Your task to perform on an android device: check google app version Image 0: 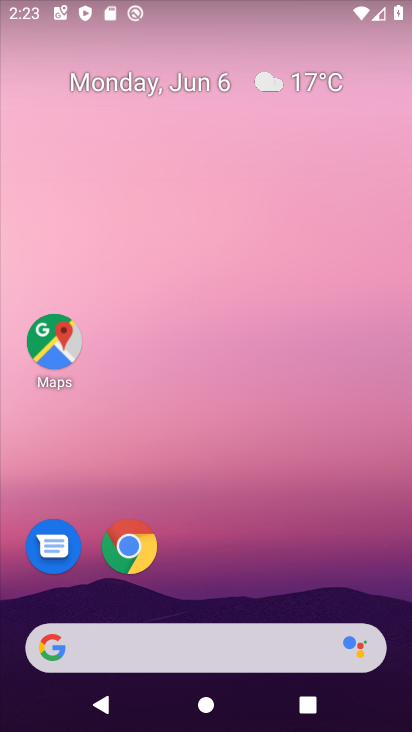
Step 0: drag from (242, 621) to (234, 245)
Your task to perform on an android device: check google app version Image 1: 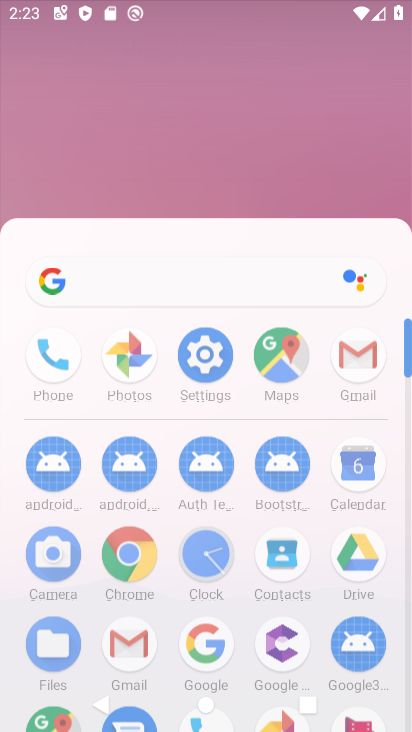
Step 1: click (234, 245)
Your task to perform on an android device: check google app version Image 2: 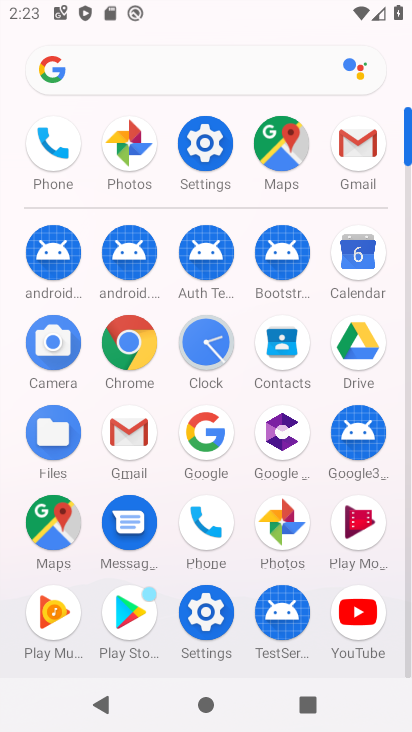
Step 2: click (142, 338)
Your task to perform on an android device: check google app version Image 3: 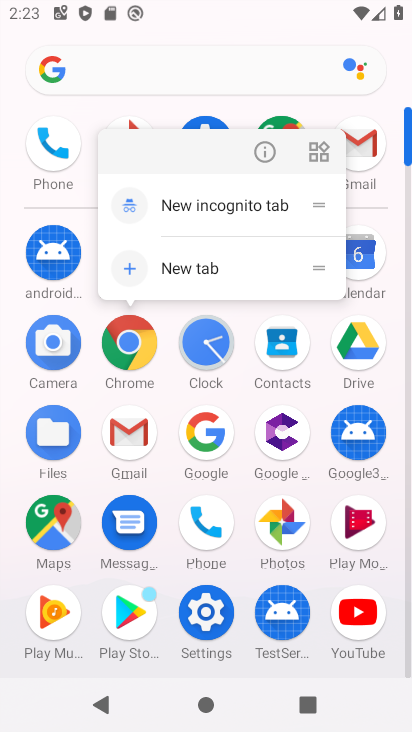
Step 3: click (257, 151)
Your task to perform on an android device: check google app version Image 4: 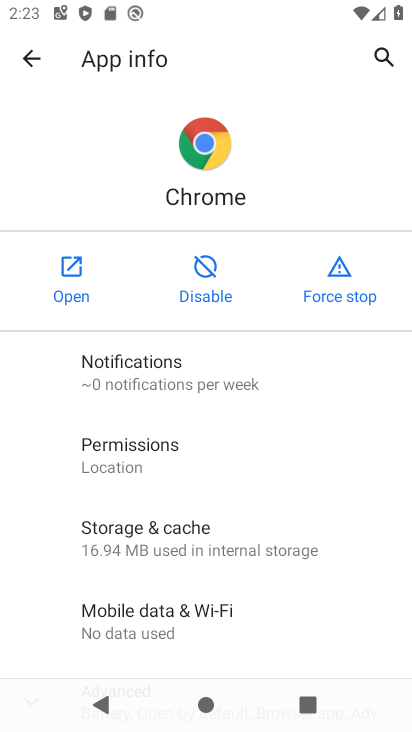
Step 4: drag from (199, 583) to (293, 17)
Your task to perform on an android device: check google app version Image 5: 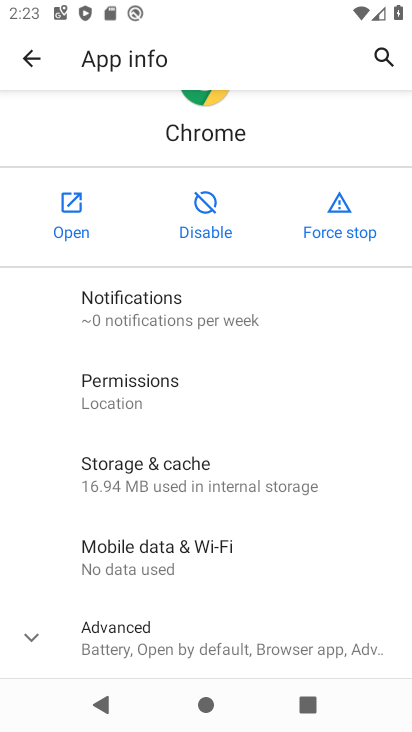
Step 5: drag from (247, 556) to (328, 3)
Your task to perform on an android device: check google app version Image 6: 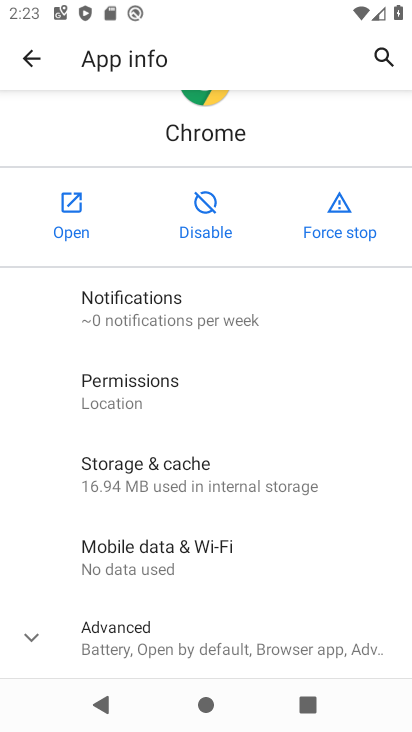
Step 6: click (200, 639)
Your task to perform on an android device: check google app version Image 7: 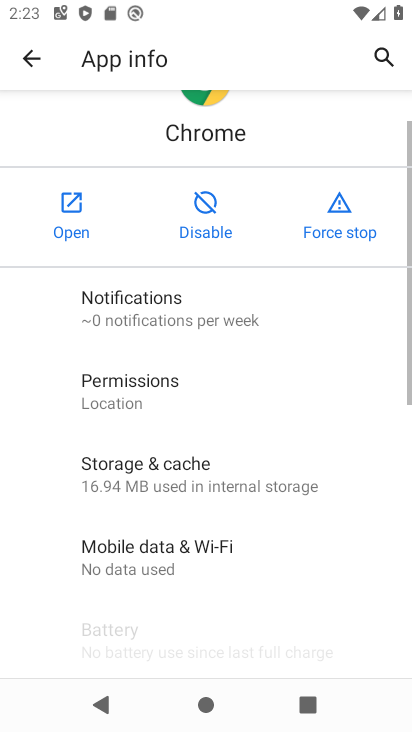
Step 7: task complete